Your task to perform on an android device: Go to CNN.com Image 0: 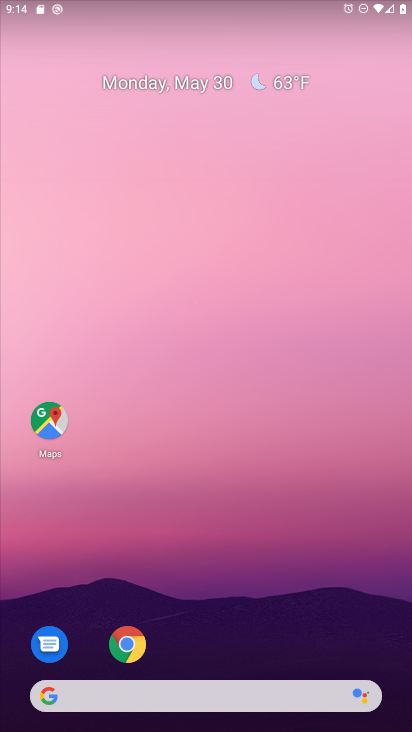
Step 0: drag from (193, 584) to (155, 91)
Your task to perform on an android device: Go to CNN.com Image 1: 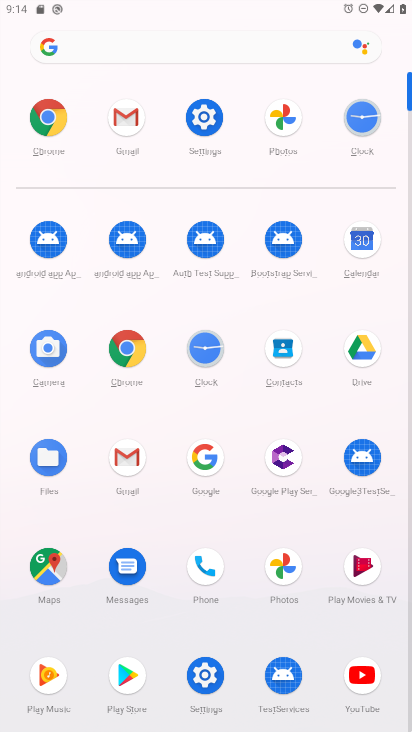
Step 1: click (205, 457)
Your task to perform on an android device: Go to CNN.com Image 2: 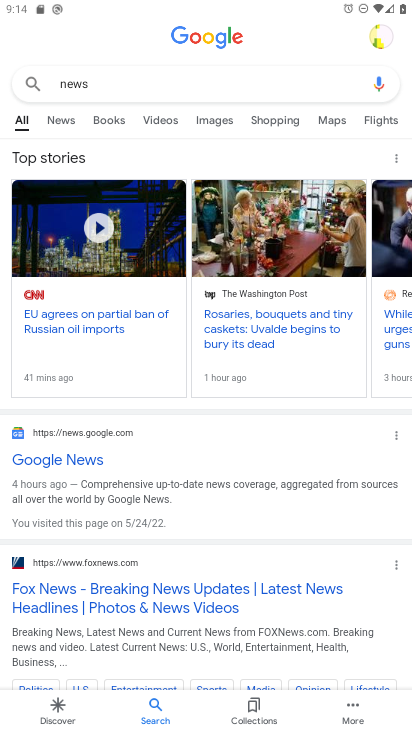
Step 2: click (153, 74)
Your task to perform on an android device: Go to CNN.com Image 3: 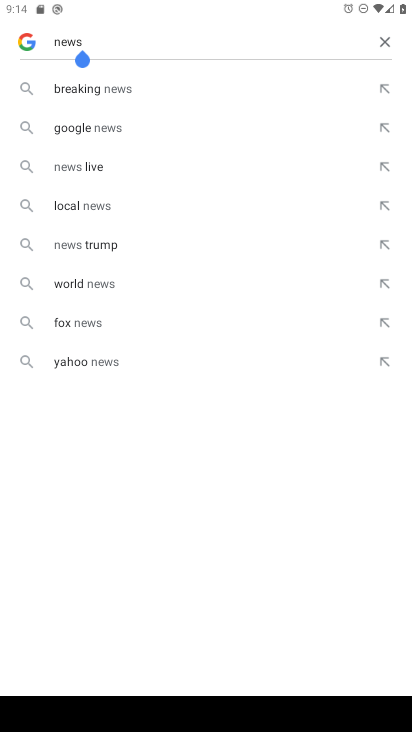
Step 3: click (373, 41)
Your task to perform on an android device: Go to CNN.com Image 4: 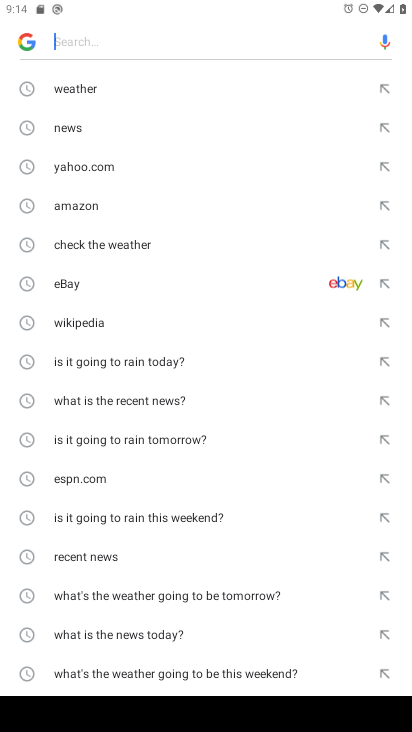
Step 4: drag from (142, 523) to (164, 127)
Your task to perform on an android device: Go to CNN.com Image 5: 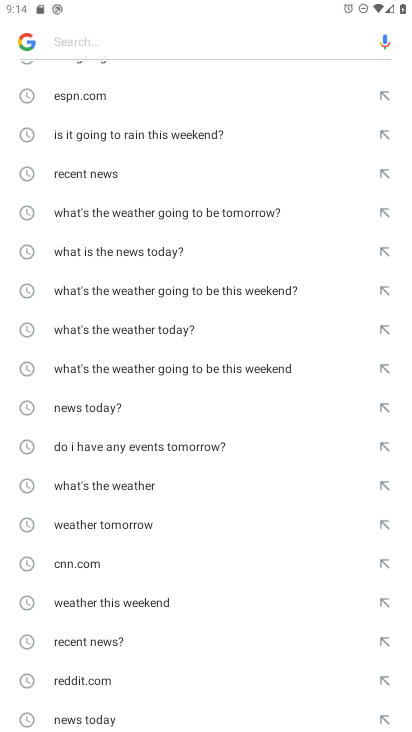
Step 5: click (82, 569)
Your task to perform on an android device: Go to CNN.com Image 6: 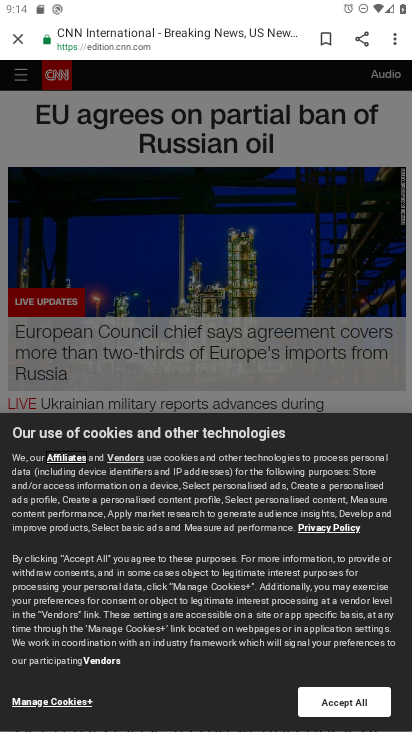
Step 6: task complete